Your task to perform on an android device: Open calendar and show me the second week of next month Image 0: 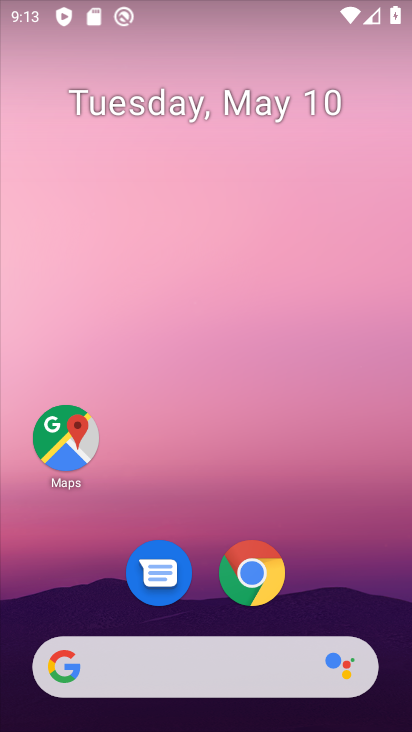
Step 0: click (361, 568)
Your task to perform on an android device: Open calendar and show me the second week of next month Image 1: 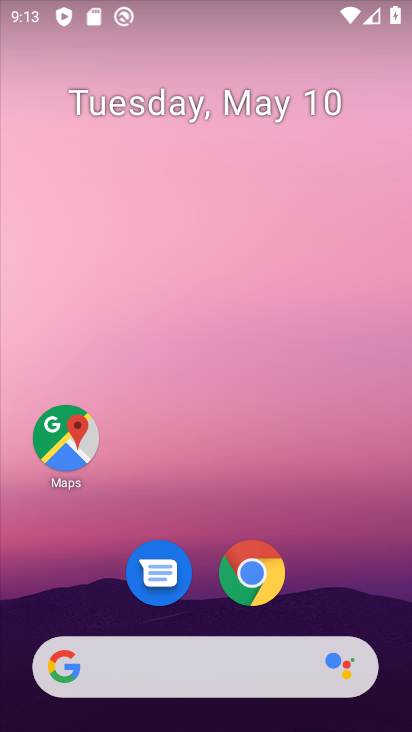
Step 1: drag from (346, 568) to (275, 127)
Your task to perform on an android device: Open calendar and show me the second week of next month Image 2: 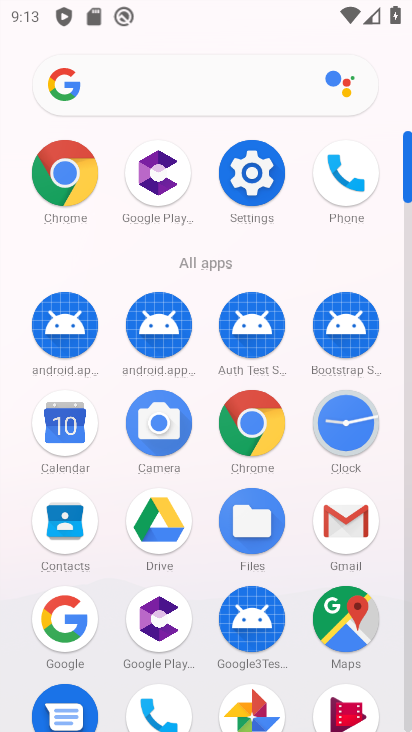
Step 2: click (57, 438)
Your task to perform on an android device: Open calendar and show me the second week of next month Image 3: 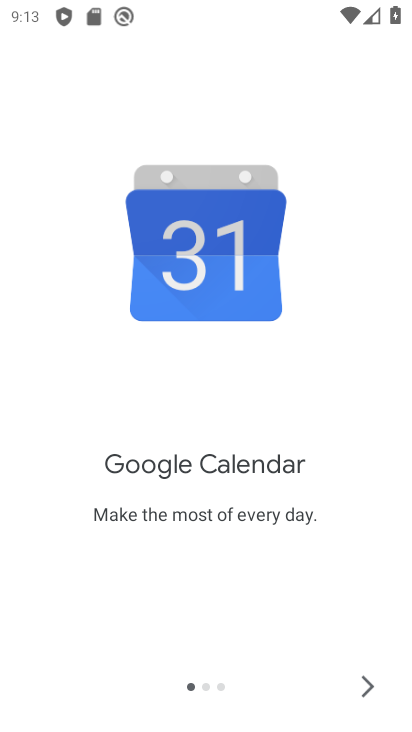
Step 3: click (361, 689)
Your task to perform on an android device: Open calendar and show me the second week of next month Image 4: 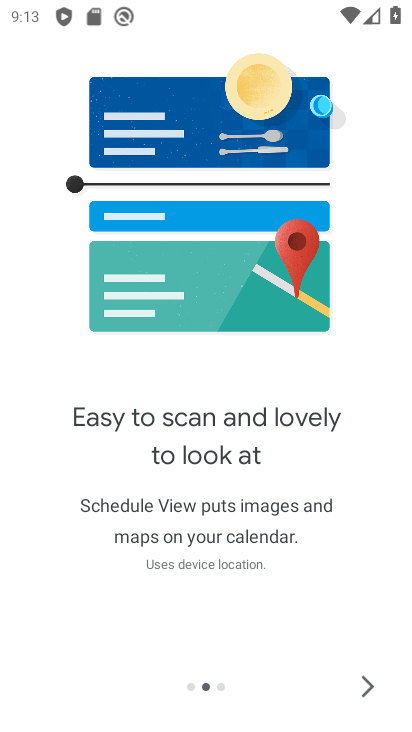
Step 4: click (367, 685)
Your task to perform on an android device: Open calendar and show me the second week of next month Image 5: 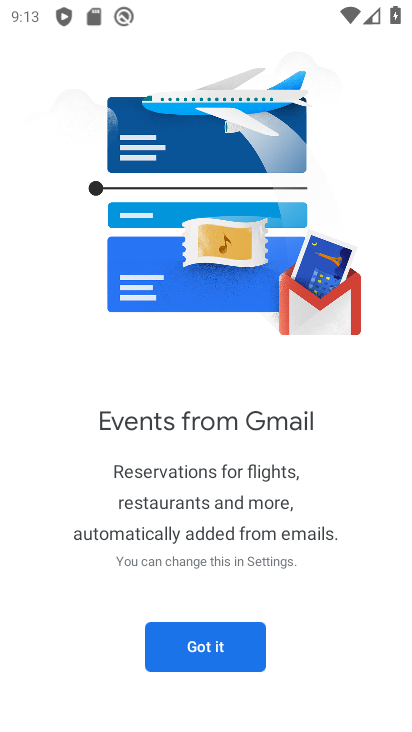
Step 5: click (214, 650)
Your task to perform on an android device: Open calendar and show me the second week of next month Image 6: 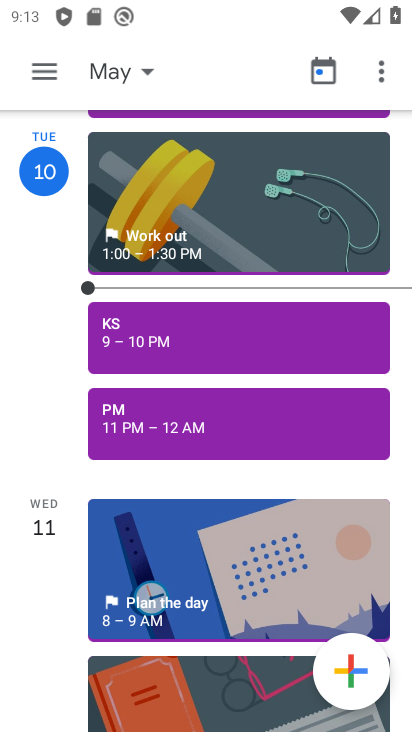
Step 6: click (145, 72)
Your task to perform on an android device: Open calendar and show me the second week of next month Image 7: 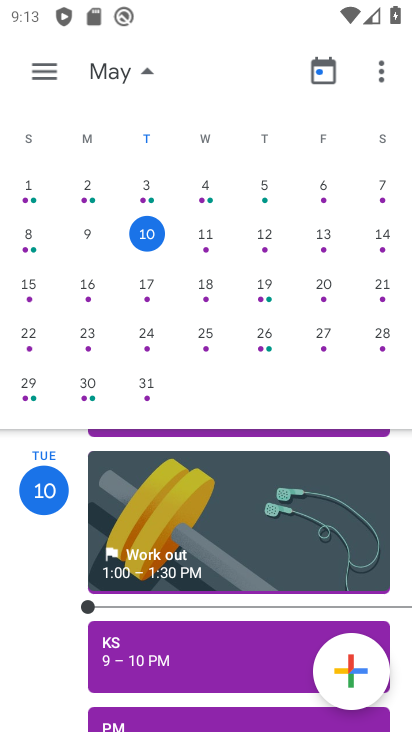
Step 7: drag from (285, 269) to (0, 317)
Your task to perform on an android device: Open calendar and show me the second week of next month Image 8: 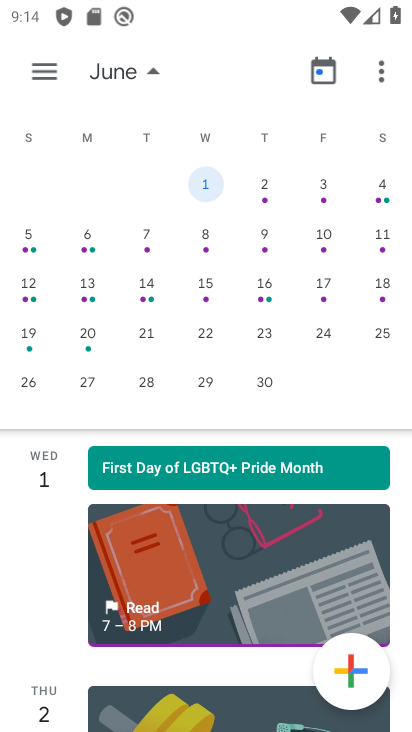
Step 8: click (85, 231)
Your task to perform on an android device: Open calendar and show me the second week of next month Image 9: 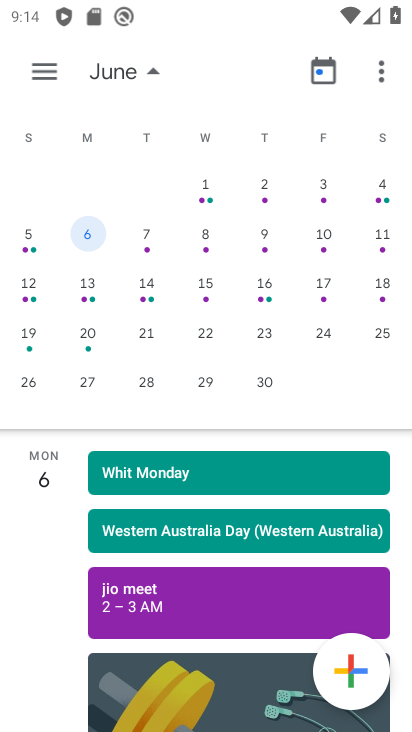
Step 9: click (39, 68)
Your task to perform on an android device: Open calendar and show me the second week of next month Image 10: 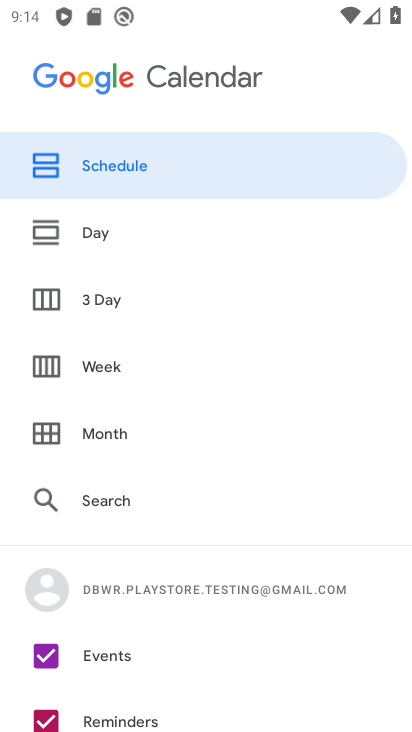
Step 10: click (91, 362)
Your task to perform on an android device: Open calendar and show me the second week of next month Image 11: 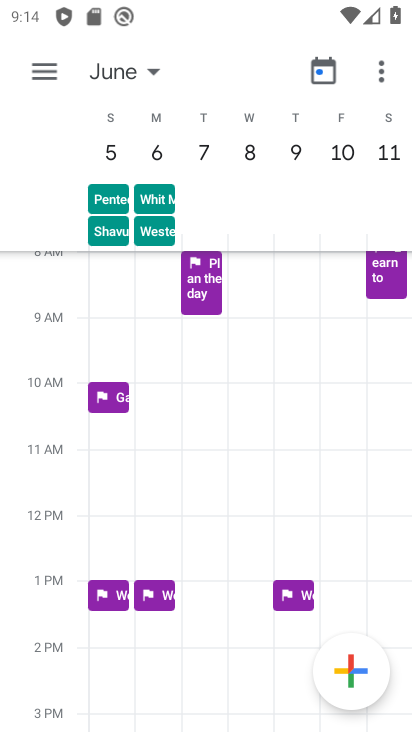
Step 11: task complete